Your task to perform on an android device: Go to settings Image 0: 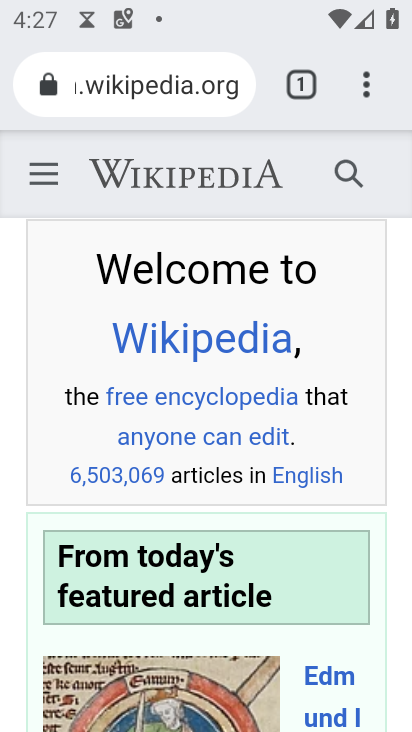
Step 0: press back button
Your task to perform on an android device: Go to settings Image 1: 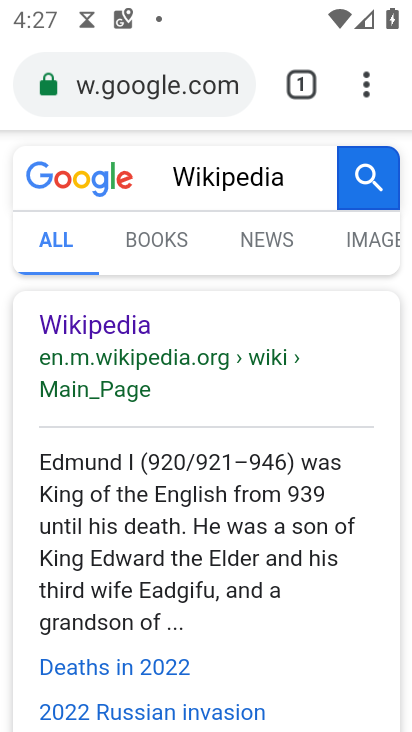
Step 1: press back button
Your task to perform on an android device: Go to settings Image 2: 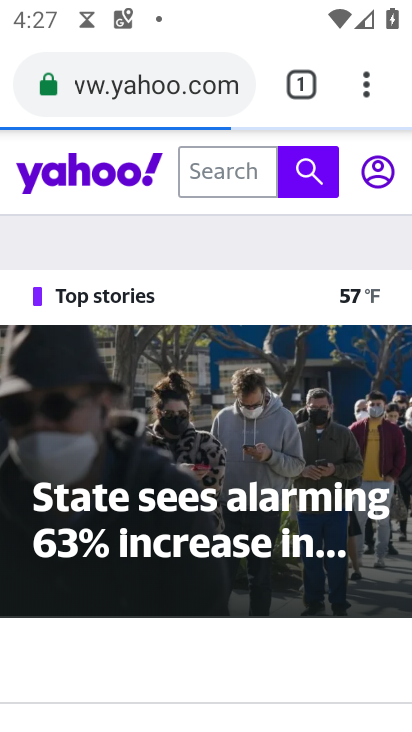
Step 2: press back button
Your task to perform on an android device: Go to settings Image 3: 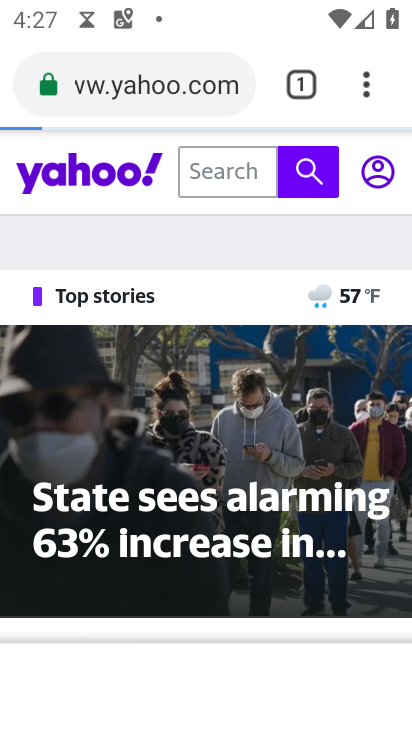
Step 3: press back button
Your task to perform on an android device: Go to settings Image 4: 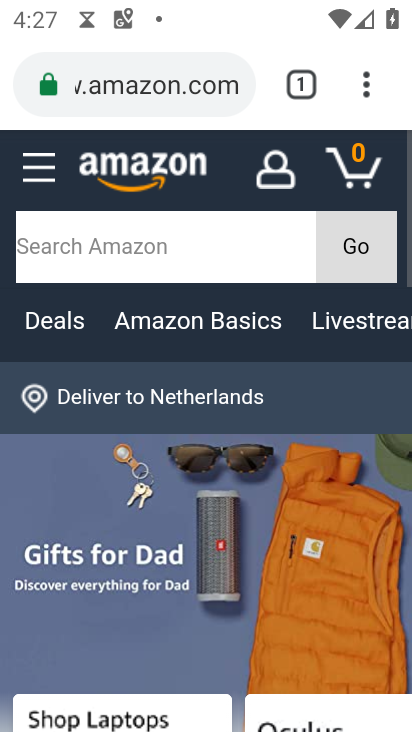
Step 4: press back button
Your task to perform on an android device: Go to settings Image 5: 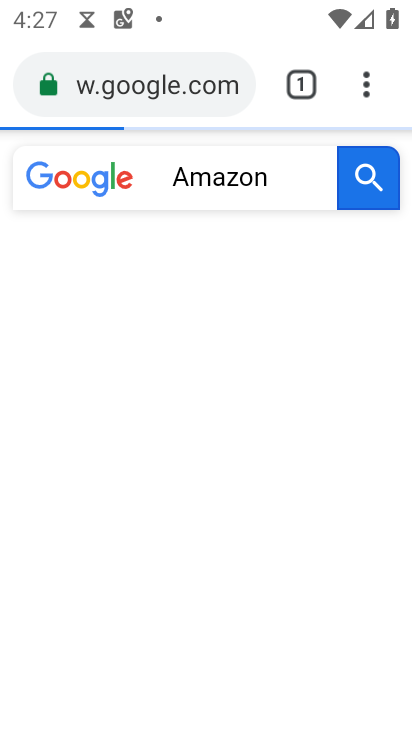
Step 5: press back button
Your task to perform on an android device: Go to settings Image 6: 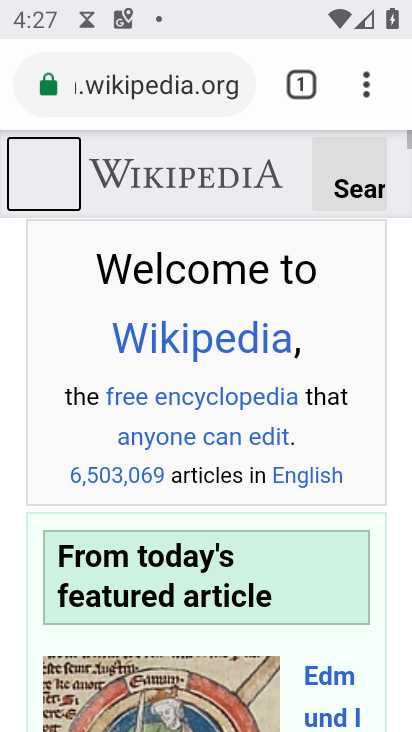
Step 6: press back button
Your task to perform on an android device: Go to settings Image 7: 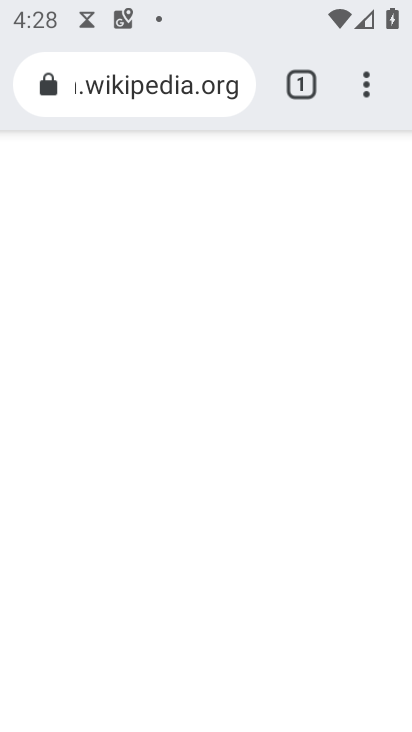
Step 7: press back button
Your task to perform on an android device: Go to settings Image 8: 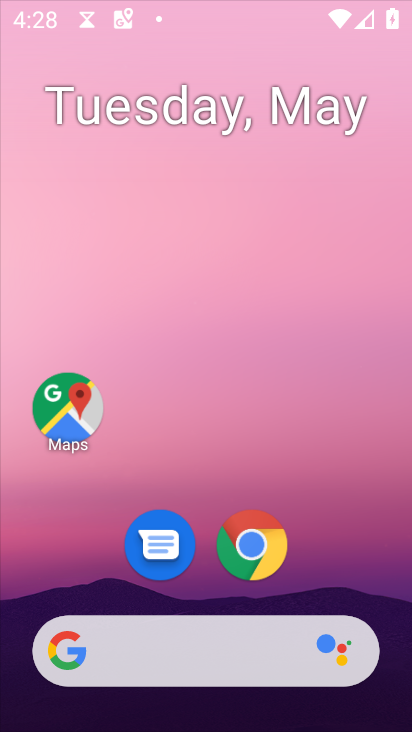
Step 8: press back button
Your task to perform on an android device: Go to settings Image 9: 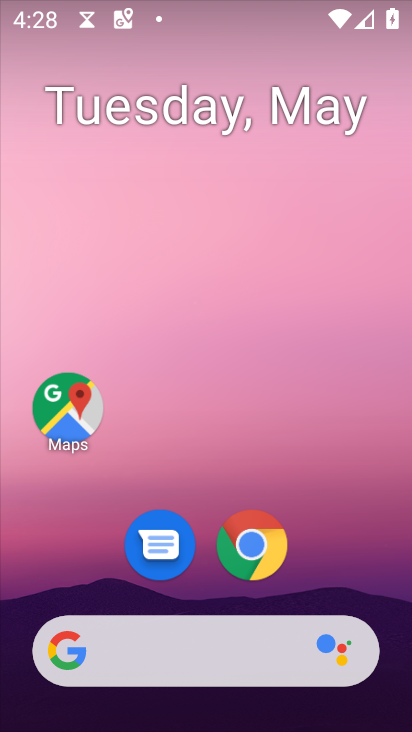
Step 9: drag from (334, 551) to (262, 74)
Your task to perform on an android device: Go to settings Image 10: 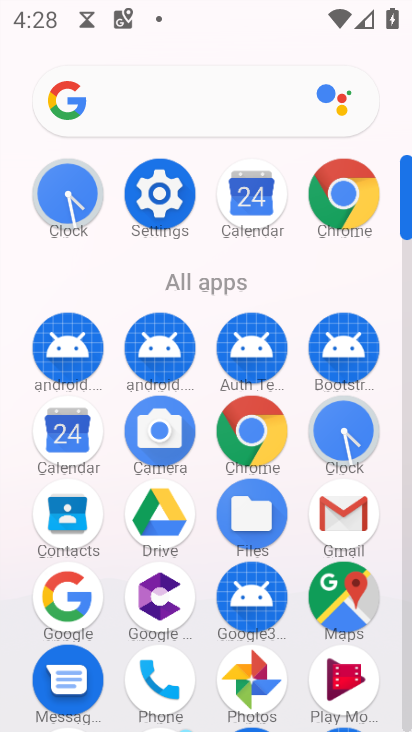
Step 10: click (157, 194)
Your task to perform on an android device: Go to settings Image 11: 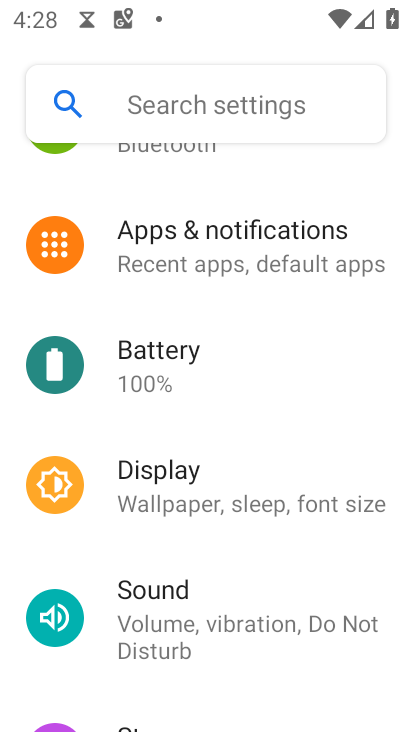
Step 11: task complete